Your task to perform on an android device: What's on my calendar today? Image 0: 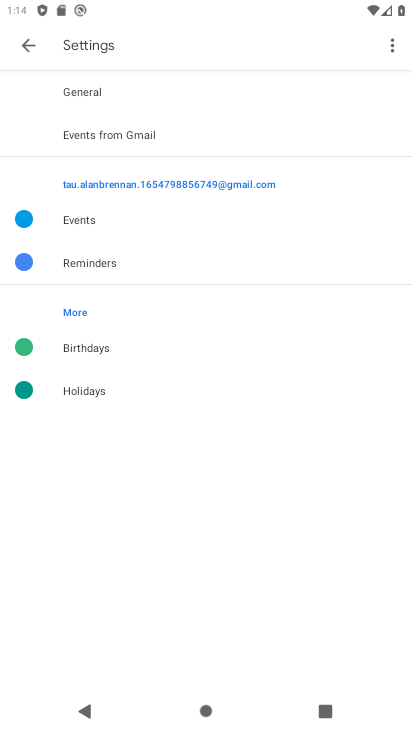
Step 0: press home button
Your task to perform on an android device: What's on my calendar today? Image 1: 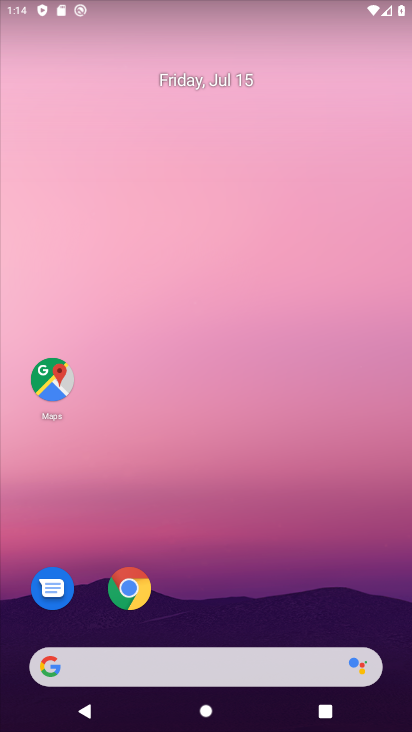
Step 1: drag from (289, 578) to (258, 34)
Your task to perform on an android device: What's on my calendar today? Image 2: 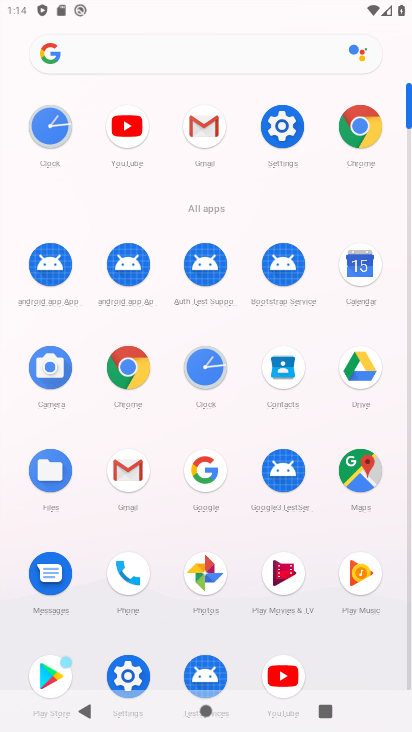
Step 2: click (358, 279)
Your task to perform on an android device: What's on my calendar today? Image 3: 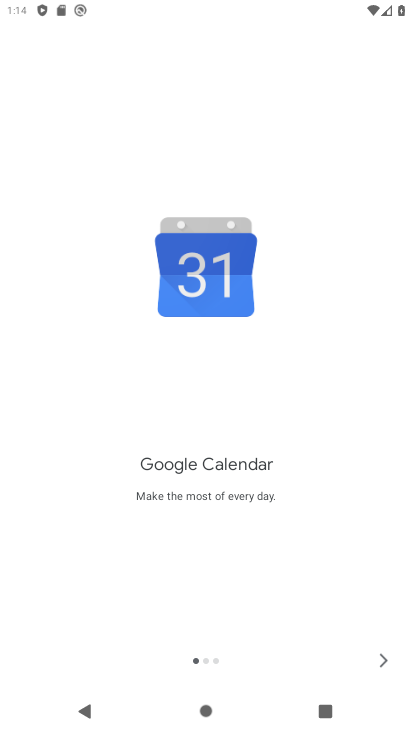
Step 3: click (389, 667)
Your task to perform on an android device: What's on my calendar today? Image 4: 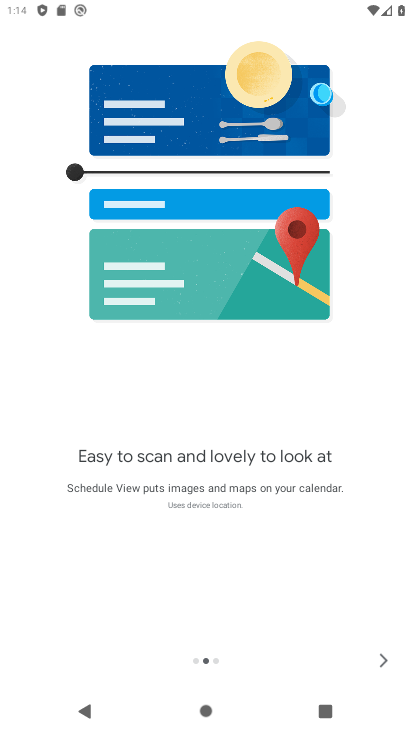
Step 4: click (389, 667)
Your task to perform on an android device: What's on my calendar today? Image 5: 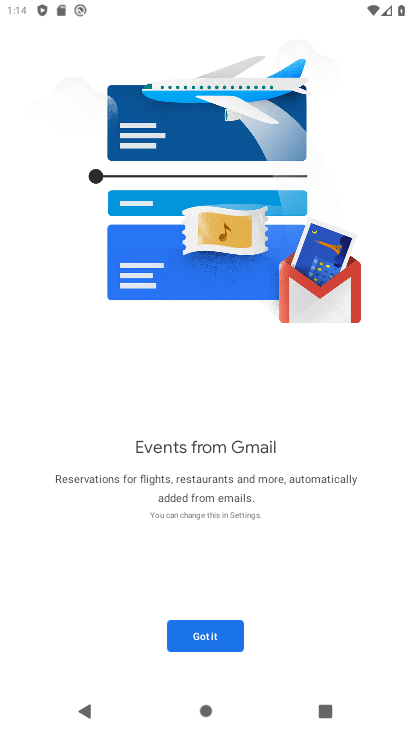
Step 5: click (200, 639)
Your task to perform on an android device: What's on my calendar today? Image 6: 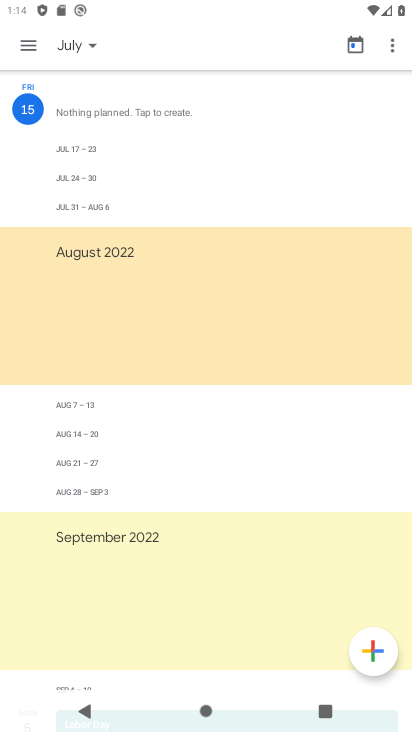
Step 6: click (89, 57)
Your task to perform on an android device: What's on my calendar today? Image 7: 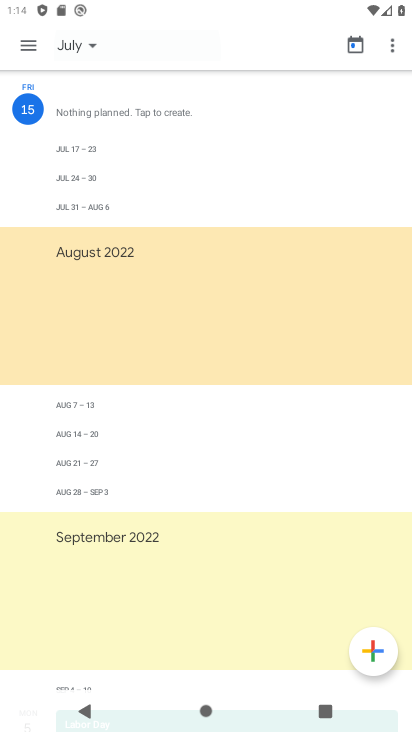
Step 7: click (89, 57)
Your task to perform on an android device: What's on my calendar today? Image 8: 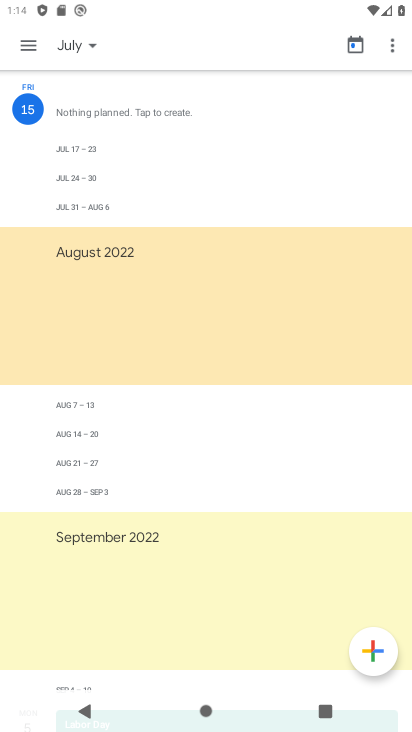
Step 8: click (65, 50)
Your task to perform on an android device: What's on my calendar today? Image 9: 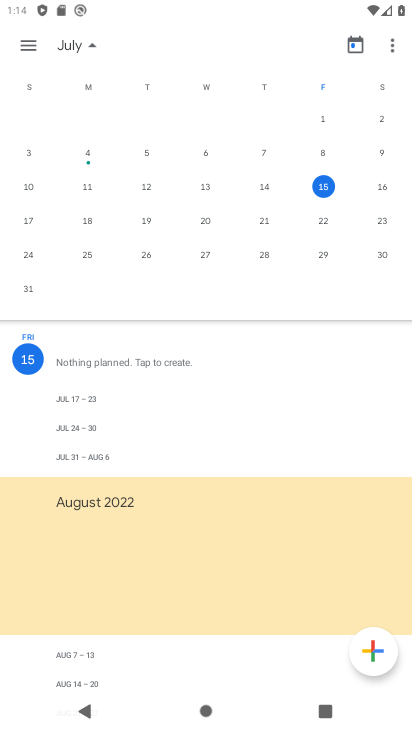
Step 9: click (332, 195)
Your task to perform on an android device: What's on my calendar today? Image 10: 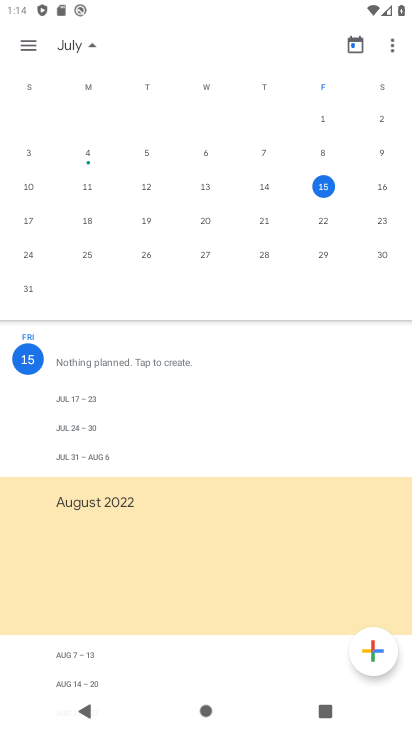
Step 10: task complete